Your task to perform on an android device: turn on bluetooth scan Image 0: 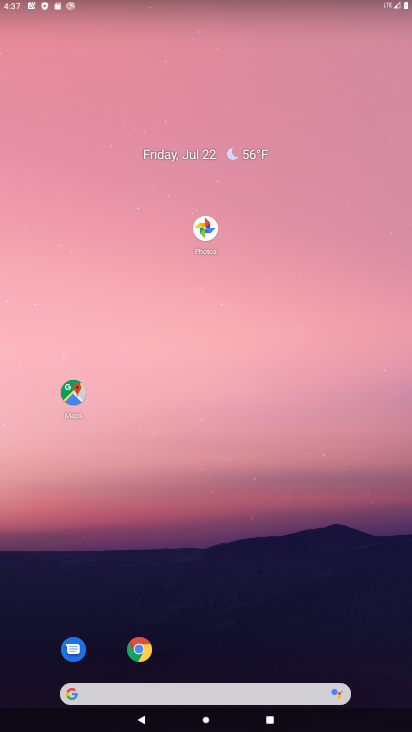
Step 0: drag from (168, 266) to (142, 10)
Your task to perform on an android device: turn on bluetooth scan Image 1: 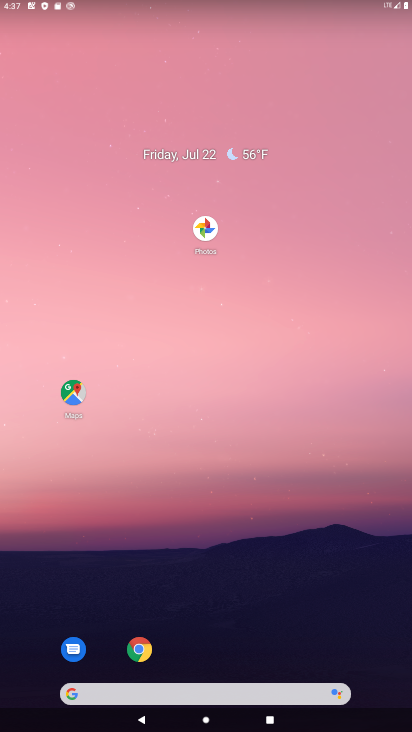
Step 1: drag from (262, 463) to (247, 26)
Your task to perform on an android device: turn on bluetooth scan Image 2: 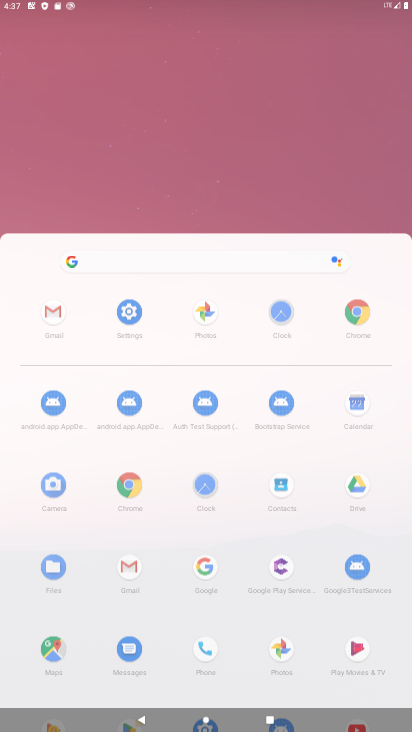
Step 2: drag from (278, 363) to (311, 114)
Your task to perform on an android device: turn on bluetooth scan Image 3: 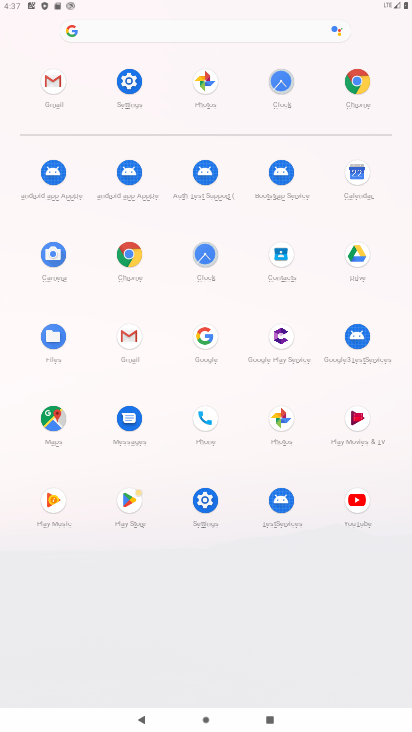
Step 3: click (198, 506)
Your task to perform on an android device: turn on bluetooth scan Image 4: 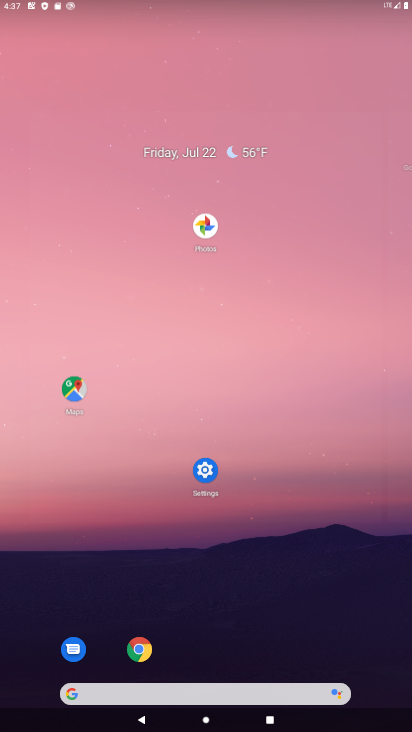
Step 4: click (206, 502)
Your task to perform on an android device: turn on bluetooth scan Image 5: 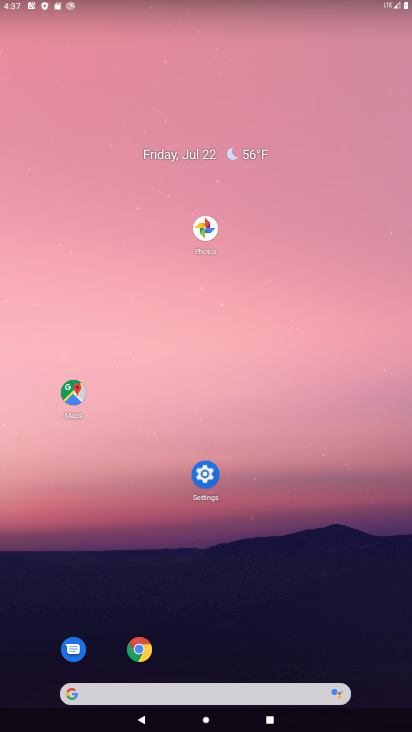
Step 5: drag from (195, 434) to (195, 94)
Your task to perform on an android device: turn on bluetooth scan Image 6: 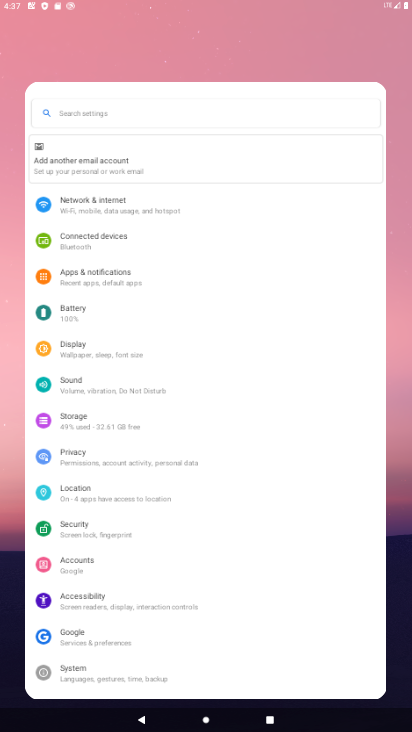
Step 6: drag from (300, 479) to (300, 93)
Your task to perform on an android device: turn on bluetooth scan Image 7: 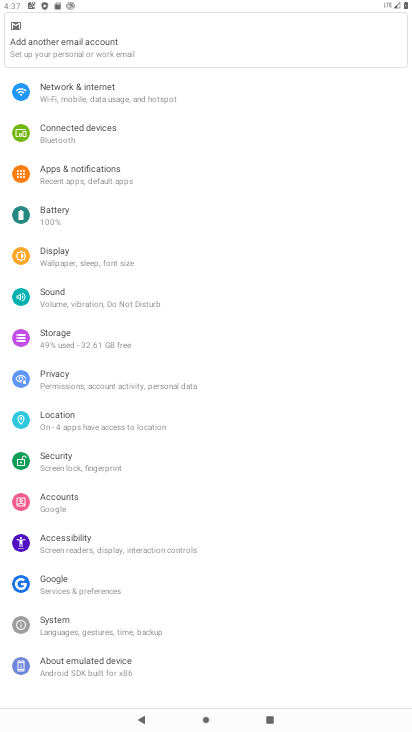
Step 7: click (67, 413)
Your task to perform on an android device: turn on bluetooth scan Image 8: 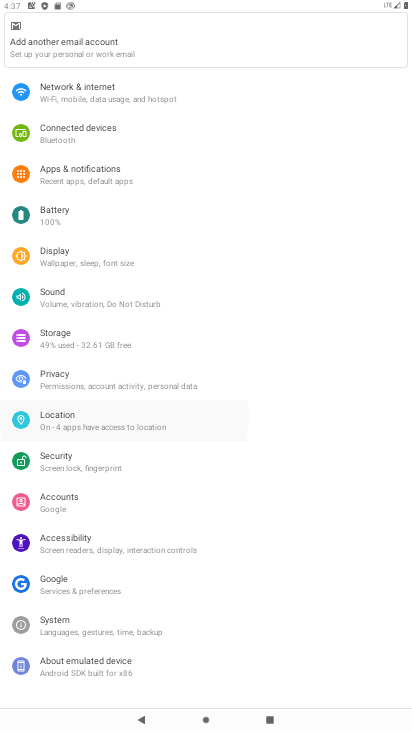
Step 8: click (68, 421)
Your task to perform on an android device: turn on bluetooth scan Image 9: 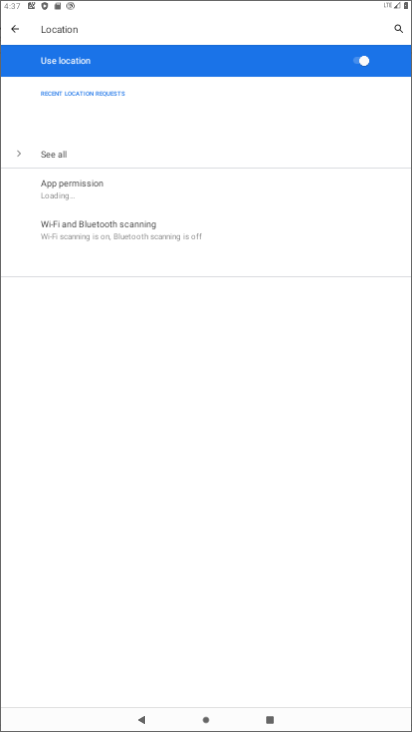
Step 9: click (71, 423)
Your task to perform on an android device: turn on bluetooth scan Image 10: 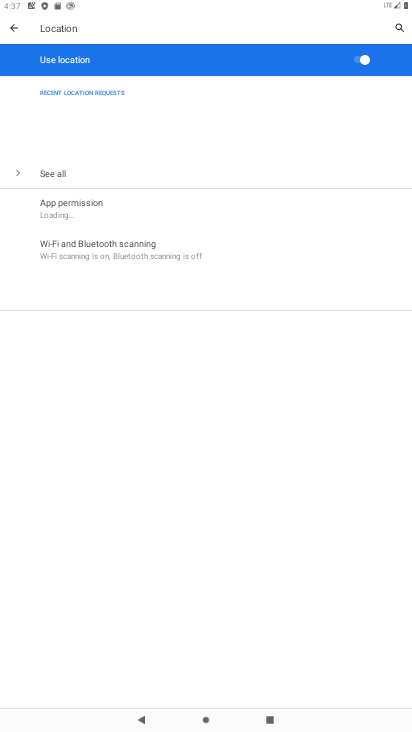
Step 10: click (71, 423)
Your task to perform on an android device: turn on bluetooth scan Image 11: 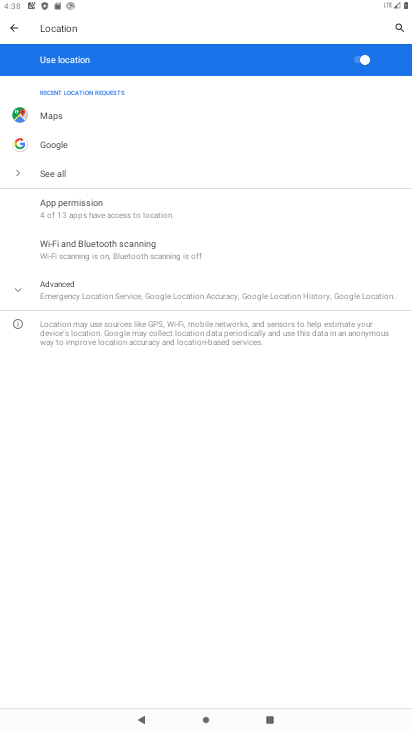
Step 11: click (80, 254)
Your task to perform on an android device: turn on bluetooth scan Image 12: 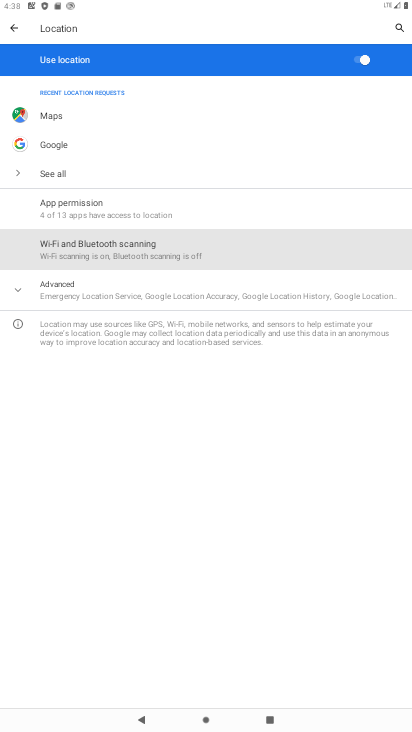
Step 12: click (80, 254)
Your task to perform on an android device: turn on bluetooth scan Image 13: 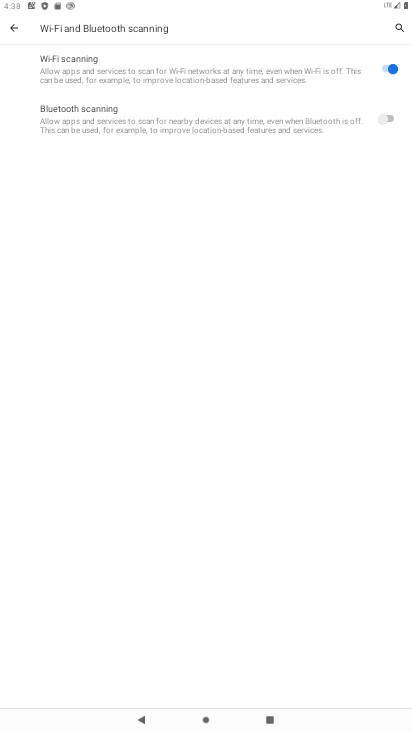
Step 13: click (79, 255)
Your task to perform on an android device: turn on bluetooth scan Image 14: 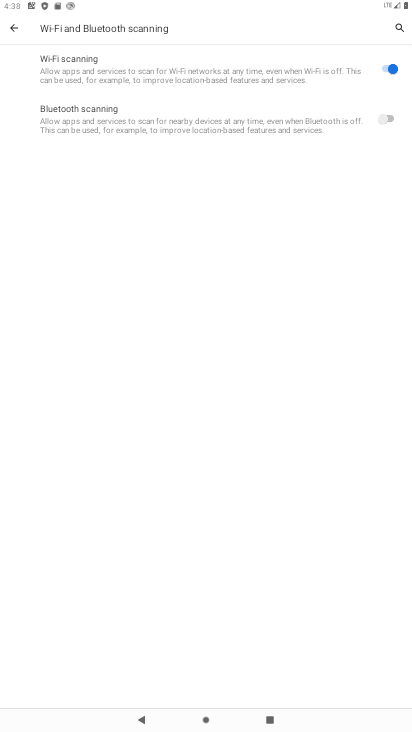
Step 14: click (385, 120)
Your task to perform on an android device: turn on bluetooth scan Image 15: 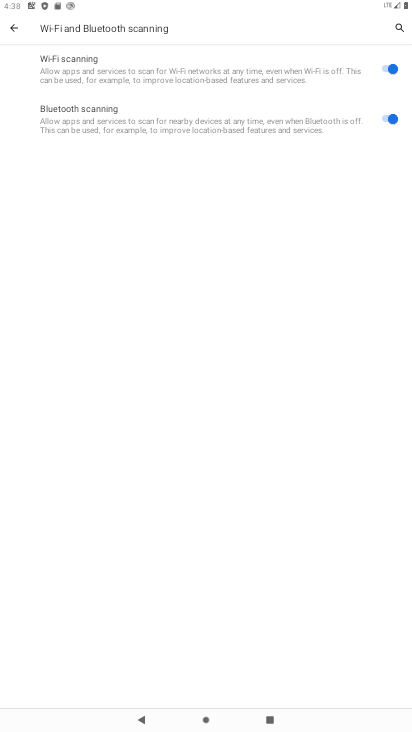
Step 15: task complete